Your task to perform on an android device: toggle notification dots Image 0: 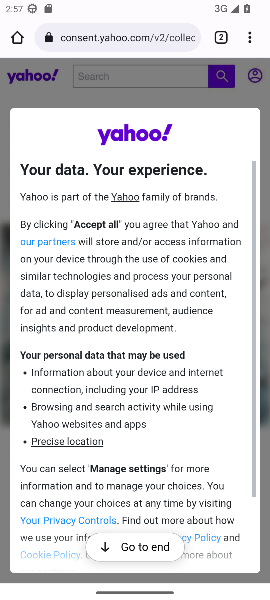
Step 0: press home button
Your task to perform on an android device: toggle notification dots Image 1: 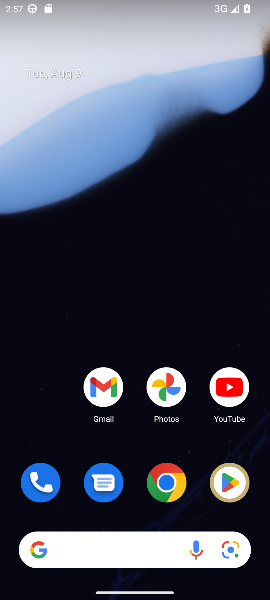
Step 1: drag from (129, 438) to (140, 87)
Your task to perform on an android device: toggle notification dots Image 2: 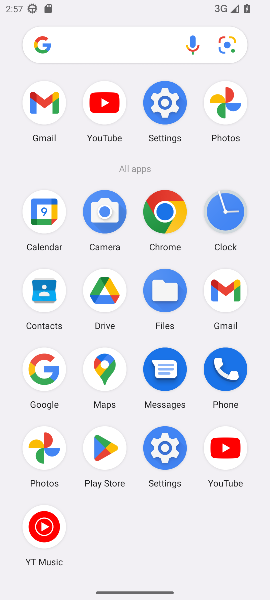
Step 2: click (176, 109)
Your task to perform on an android device: toggle notification dots Image 3: 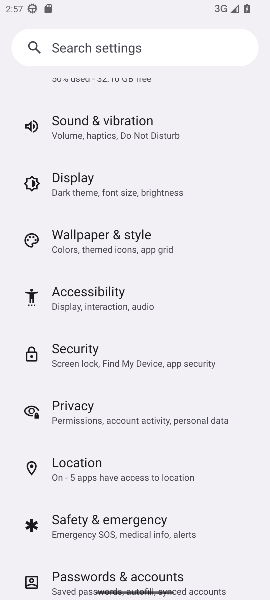
Step 3: drag from (149, 397) to (146, 436)
Your task to perform on an android device: toggle notification dots Image 4: 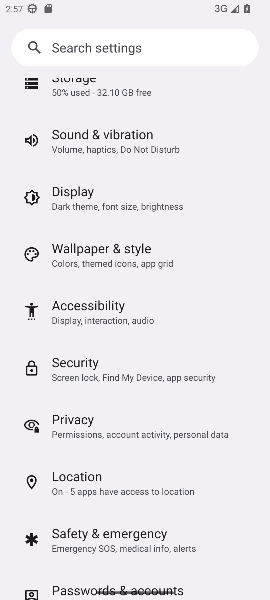
Step 4: drag from (122, 197) to (126, 393)
Your task to perform on an android device: toggle notification dots Image 5: 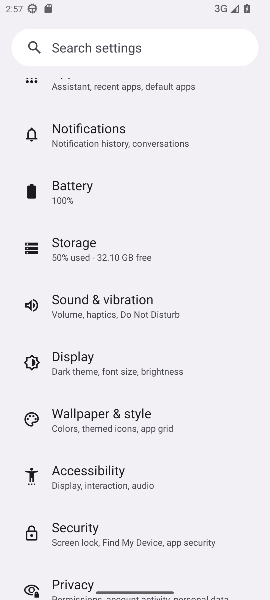
Step 5: click (121, 144)
Your task to perform on an android device: toggle notification dots Image 6: 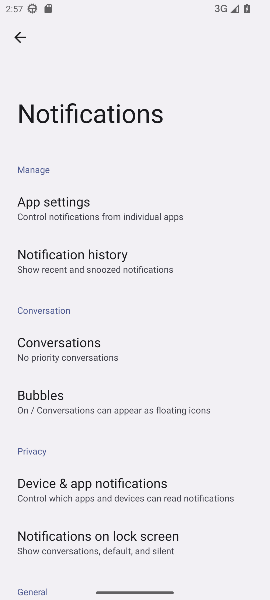
Step 6: drag from (133, 476) to (140, 256)
Your task to perform on an android device: toggle notification dots Image 7: 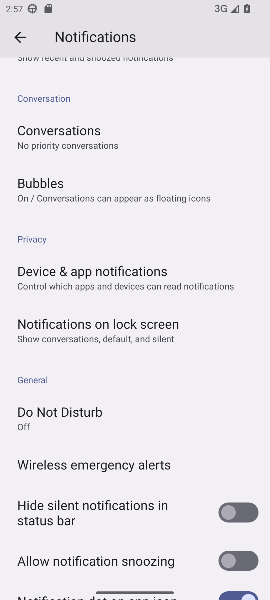
Step 7: drag from (123, 442) to (163, 194)
Your task to perform on an android device: toggle notification dots Image 8: 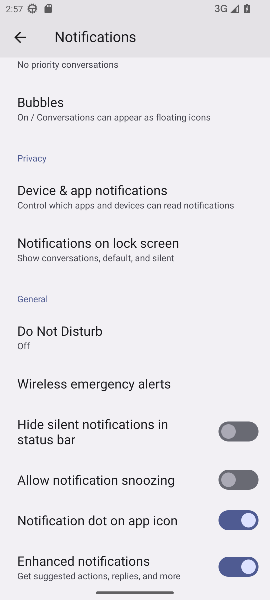
Step 8: click (221, 523)
Your task to perform on an android device: toggle notification dots Image 9: 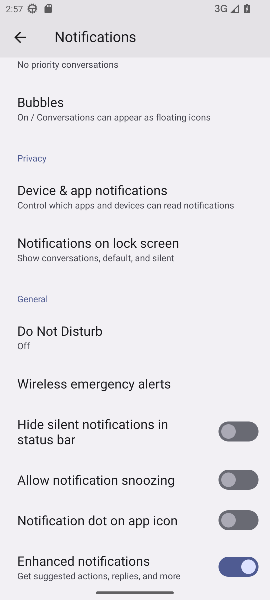
Step 9: task complete